Your task to perform on an android device: uninstall "Venmo" Image 0: 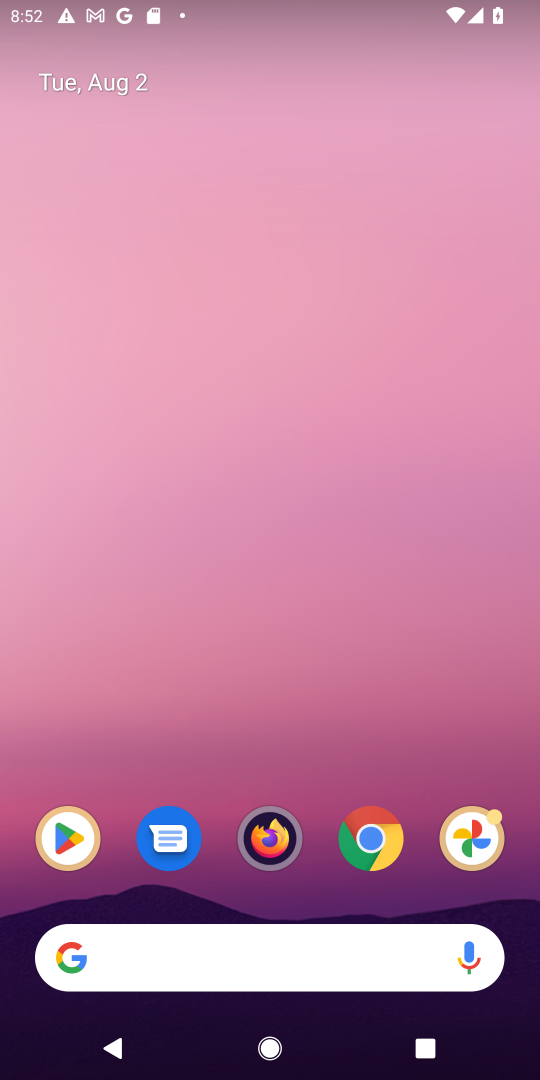
Step 0: press home button
Your task to perform on an android device: uninstall "Venmo" Image 1: 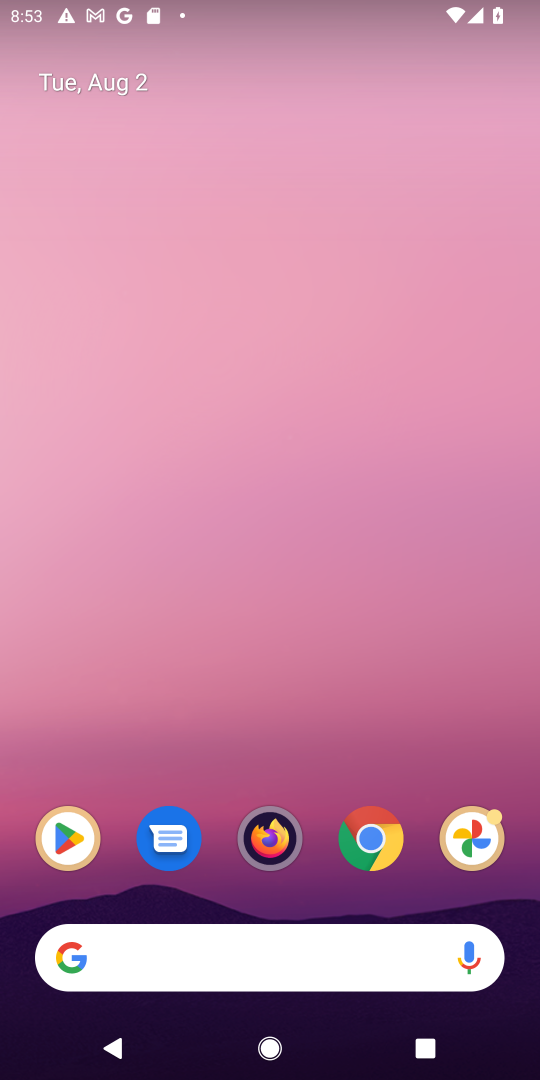
Step 1: drag from (397, 223) to (402, 81)
Your task to perform on an android device: uninstall "Venmo" Image 2: 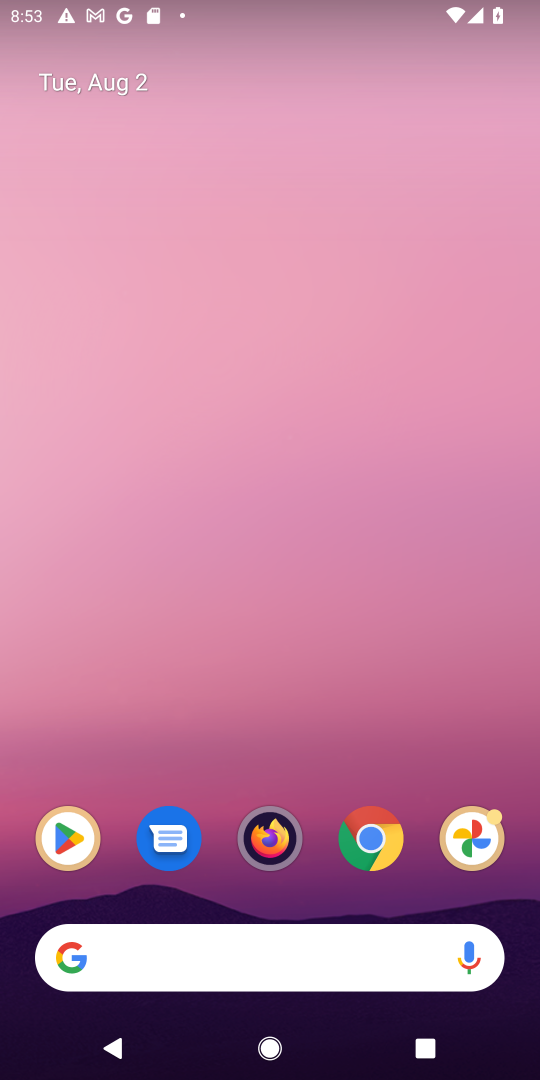
Step 2: drag from (327, 751) to (343, 34)
Your task to perform on an android device: uninstall "Venmo" Image 3: 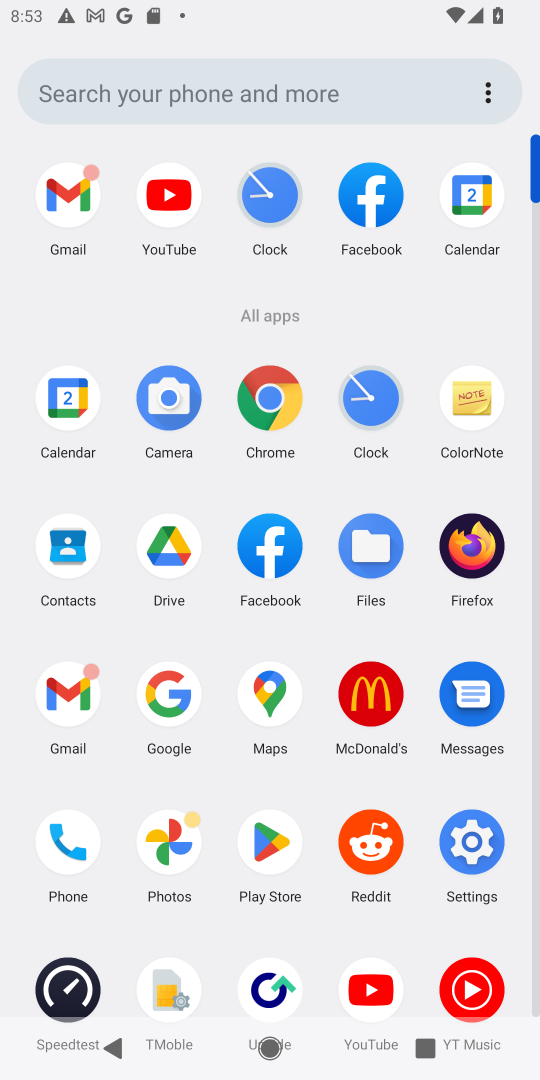
Step 3: click (267, 854)
Your task to perform on an android device: uninstall "Venmo" Image 4: 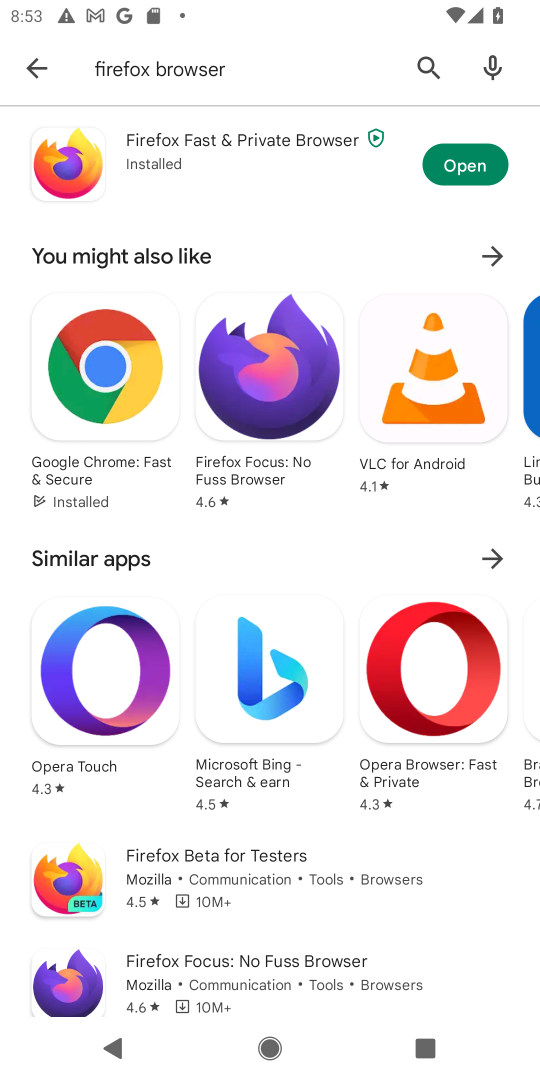
Step 4: click (426, 63)
Your task to perform on an android device: uninstall "Venmo" Image 5: 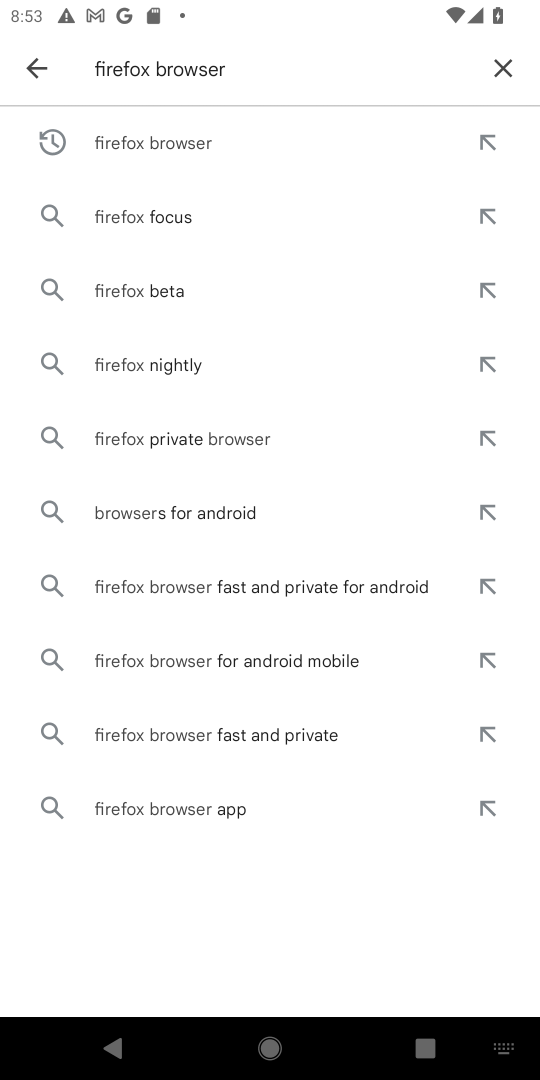
Step 5: click (487, 67)
Your task to perform on an android device: uninstall "Venmo" Image 6: 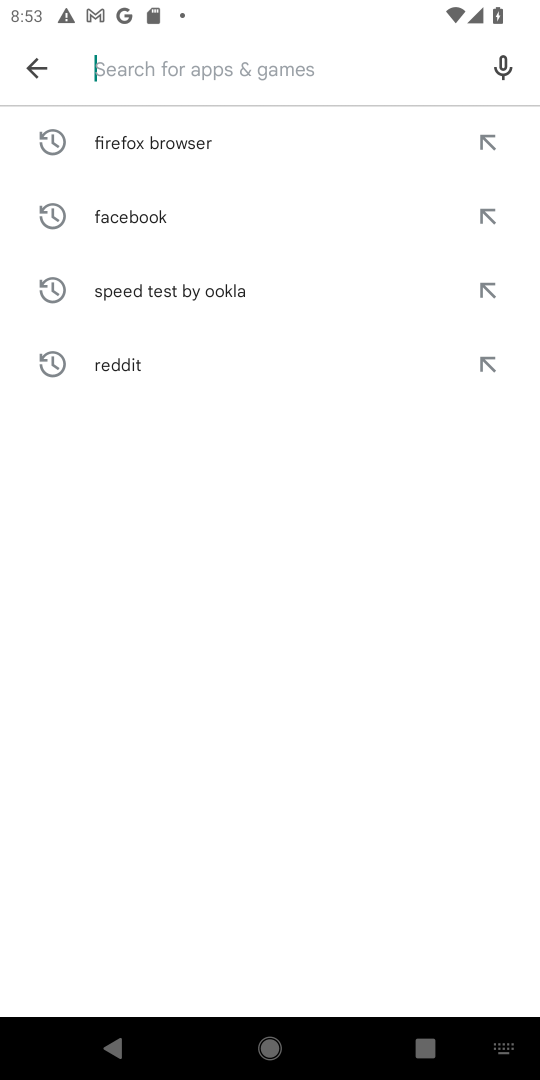
Step 6: click (283, 62)
Your task to perform on an android device: uninstall "Venmo" Image 7: 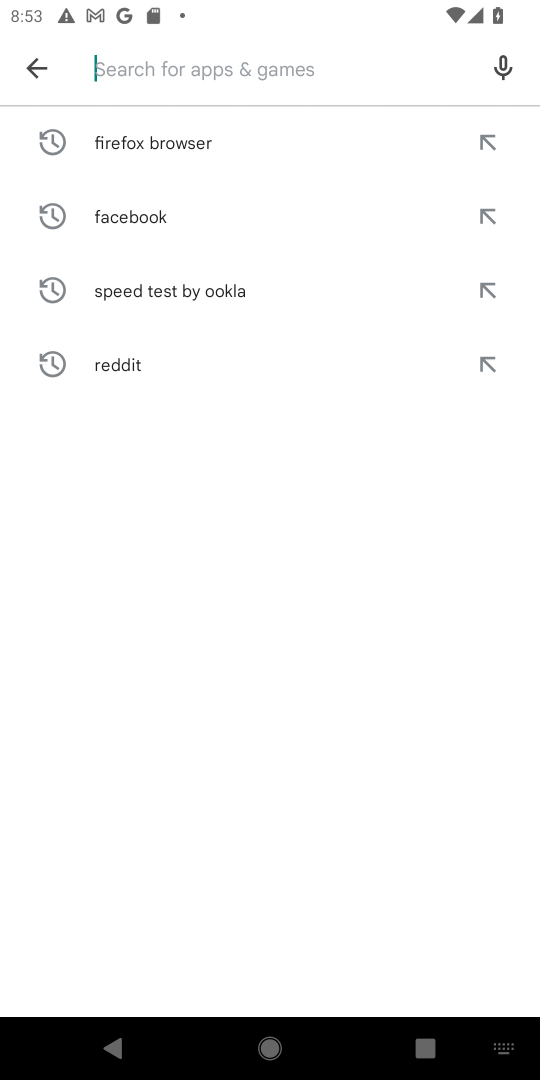
Step 7: type "venmow"
Your task to perform on an android device: uninstall "Venmo" Image 8: 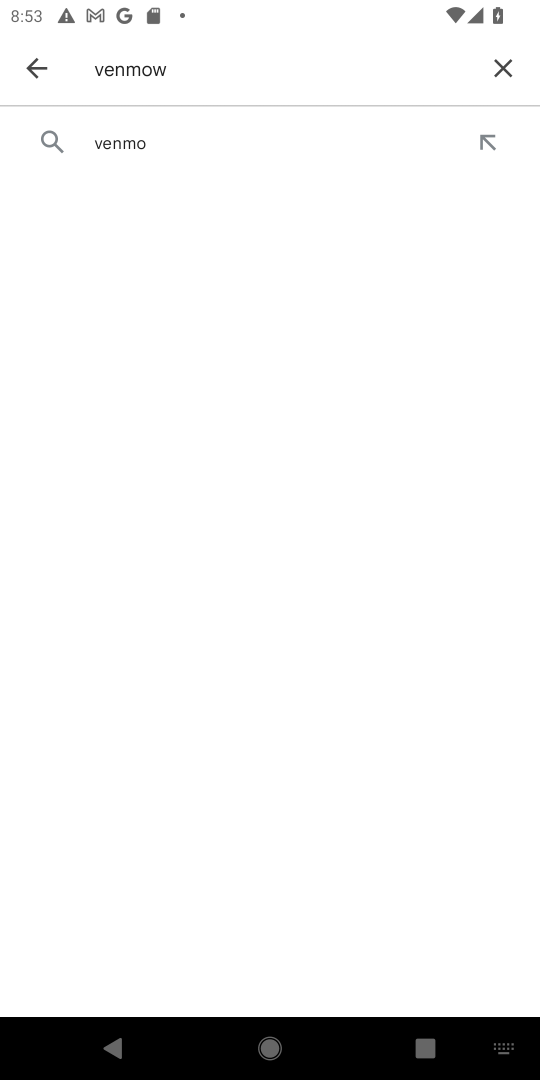
Step 8: click (114, 147)
Your task to perform on an android device: uninstall "Venmo" Image 9: 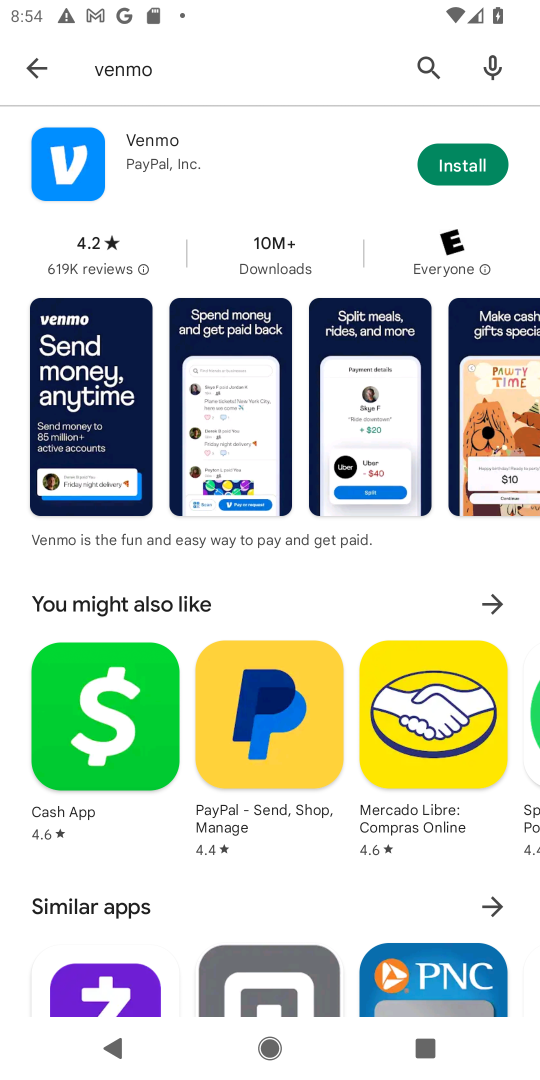
Step 9: task complete